Your task to perform on an android device: change the clock style Image 0: 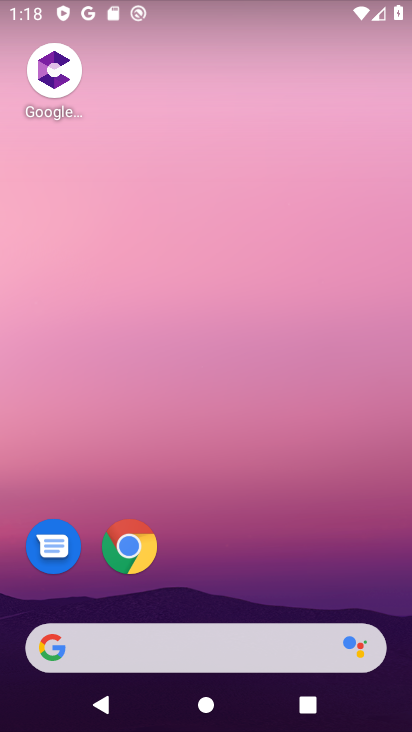
Step 0: drag from (338, 632) to (322, 3)
Your task to perform on an android device: change the clock style Image 1: 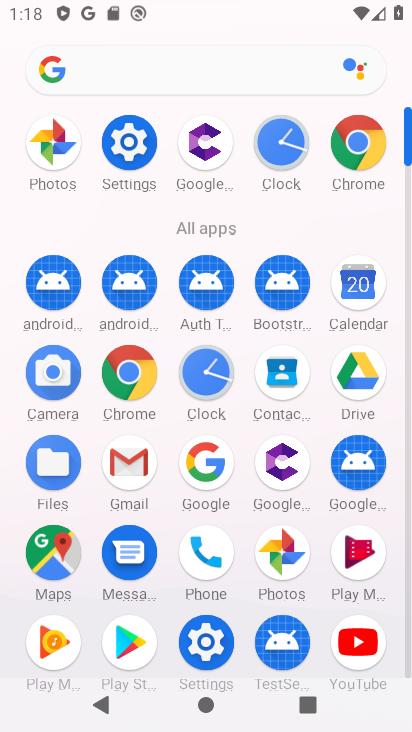
Step 1: click (203, 368)
Your task to perform on an android device: change the clock style Image 2: 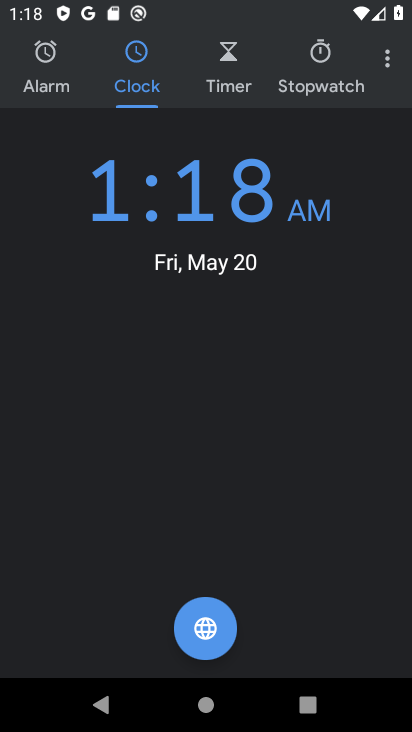
Step 2: click (382, 72)
Your task to perform on an android device: change the clock style Image 3: 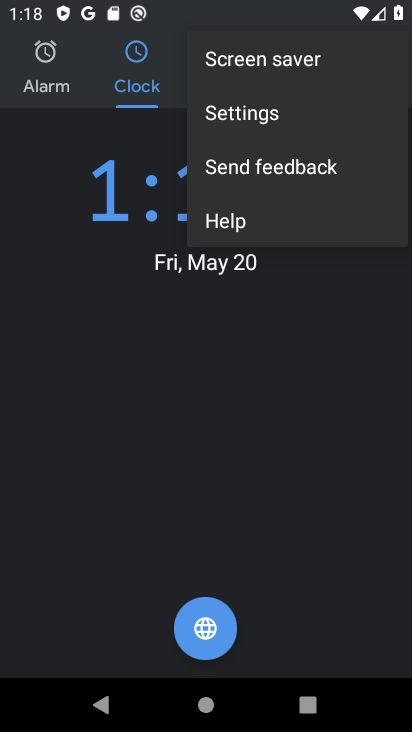
Step 3: click (293, 113)
Your task to perform on an android device: change the clock style Image 4: 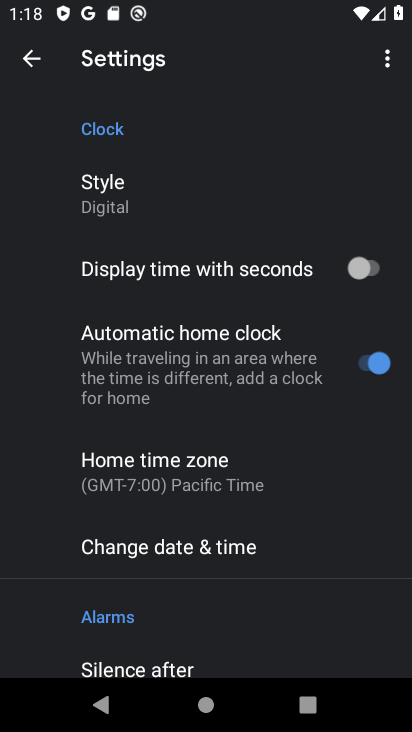
Step 4: click (155, 207)
Your task to perform on an android device: change the clock style Image 5: 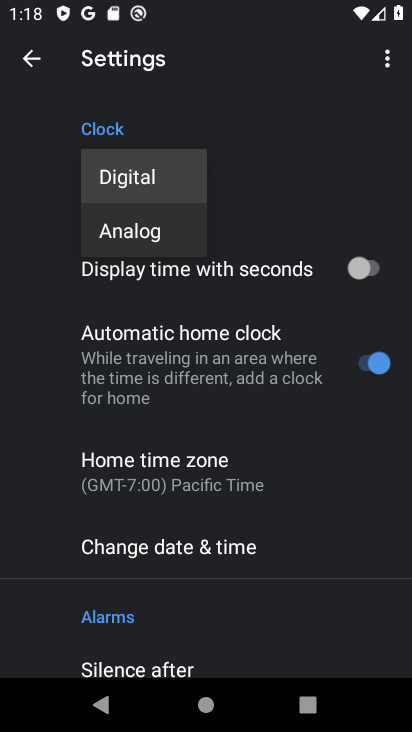
Step 5: click (127, 225)
Your task to perform on an android device: change the clock style Image 6: 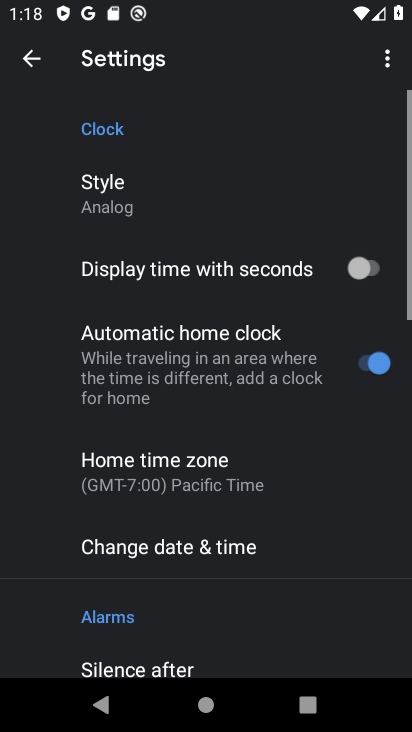
Step 6: task complete